Your task to perform on an android device: add a contact Image 0: 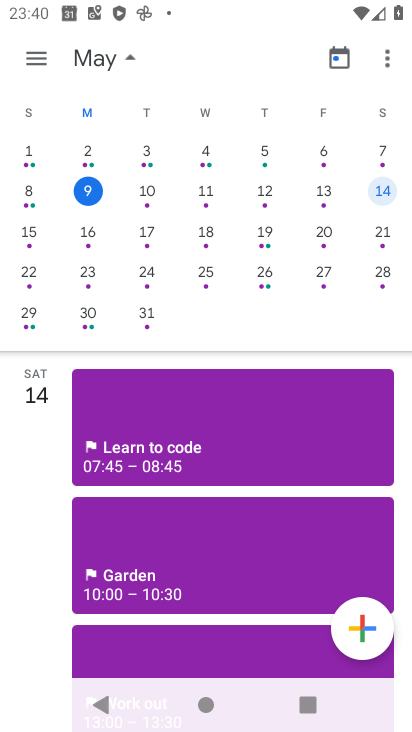
Step 0: press home button
Your task to perform on an android device: add a contact Image 1: 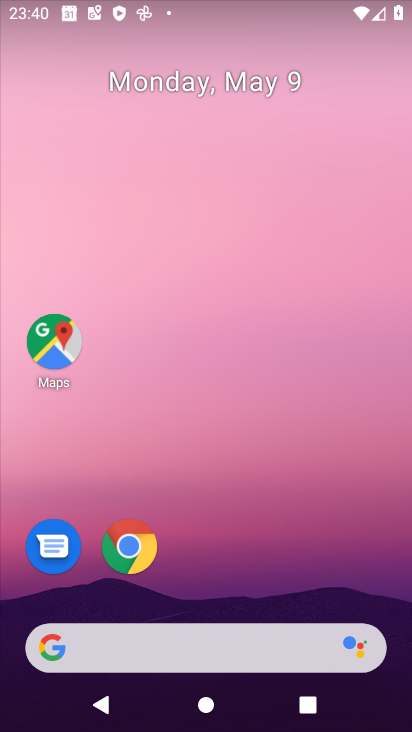
Step 1: drag from (246, 466) to (248, 18)
Your task to perform on an android device: add a contact Image 2: 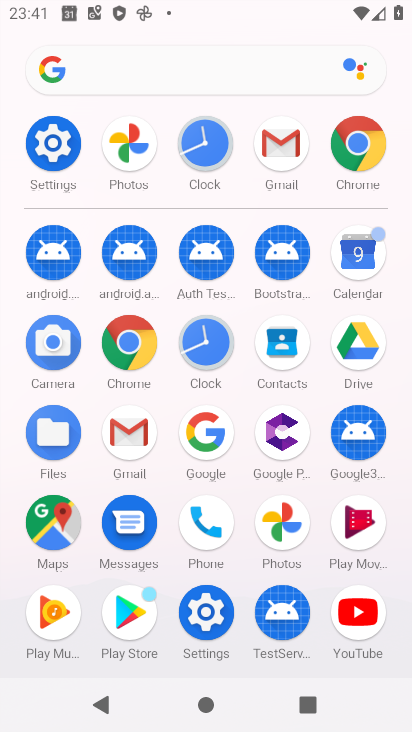
Step 2: click (288, 345)
Your task to perform on an android device: add a contact Image 3: 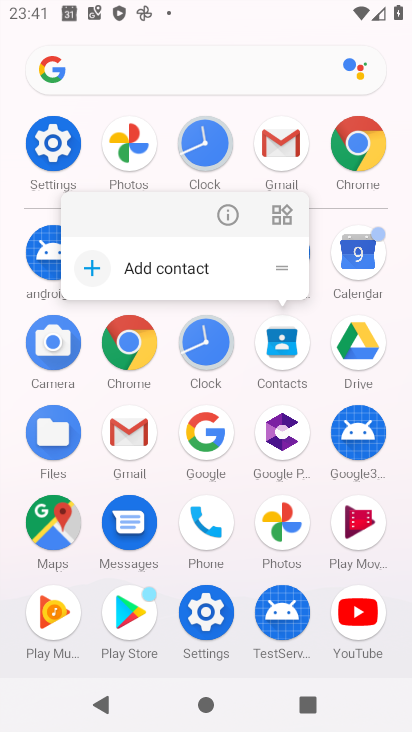
Step 3: click (287, 347)
Your task to perform on an android device: add a contact Image 4: 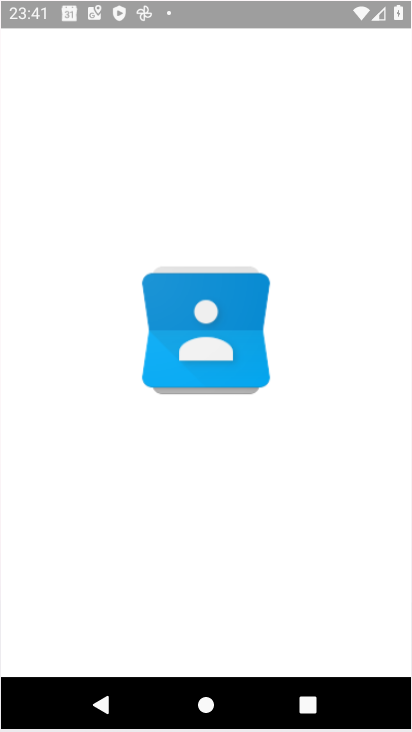
Step 4: click (287, 347)
Your task to perform on an android device: add a contact Image 5: 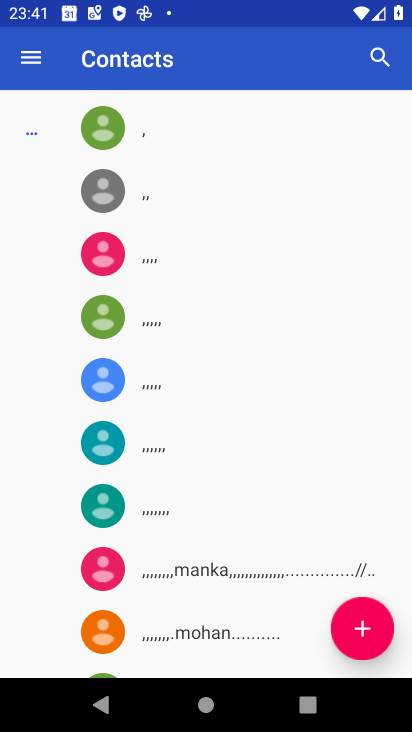
Step 5: click (366, 619)
Your task to perform on an android device: add a contact Image 6: 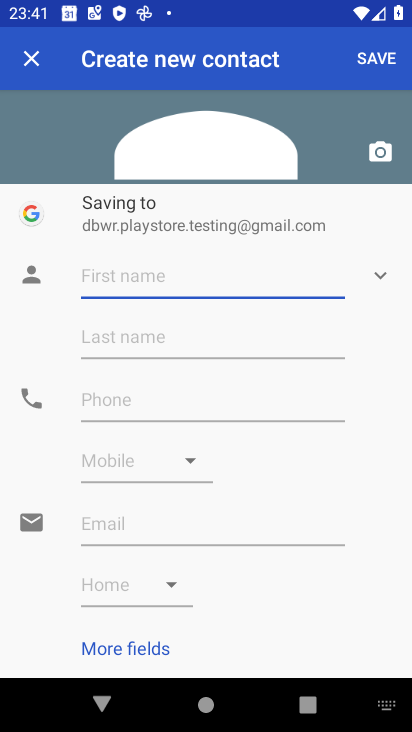
Step 6: type "hjkj"
Your task to perform on an android device: add a contact Image 7: 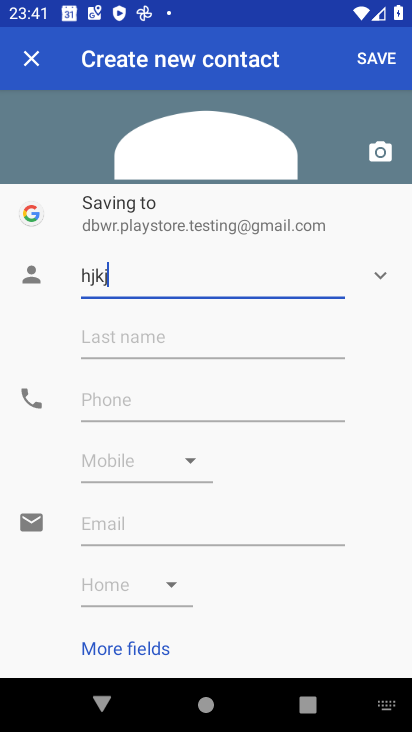
Step 7: click (134, 403)
Your task to perform on an android device: add a contact Image 8: 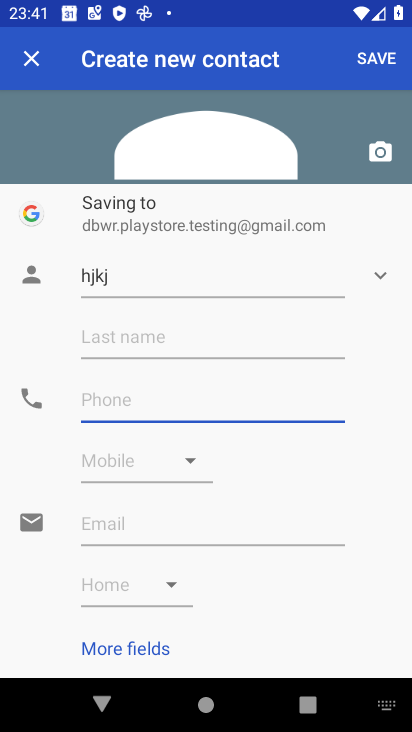
Step 8: type "889"
Your task to perform on an android device: add a contact Image 9: 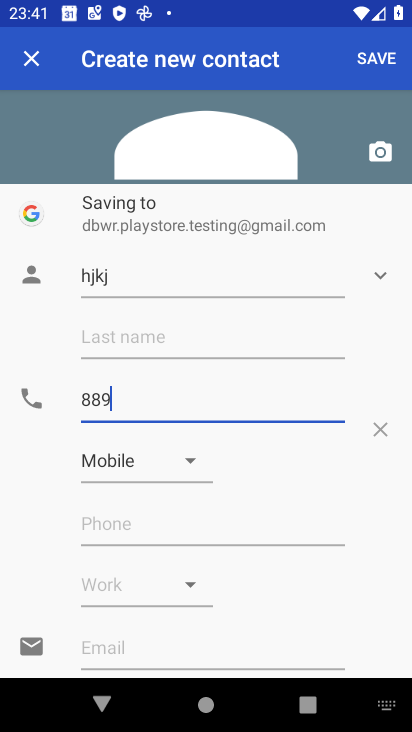
Step 9: task complete